Your task to perform on an android device: toggle data saver in the chrome app Image 0: 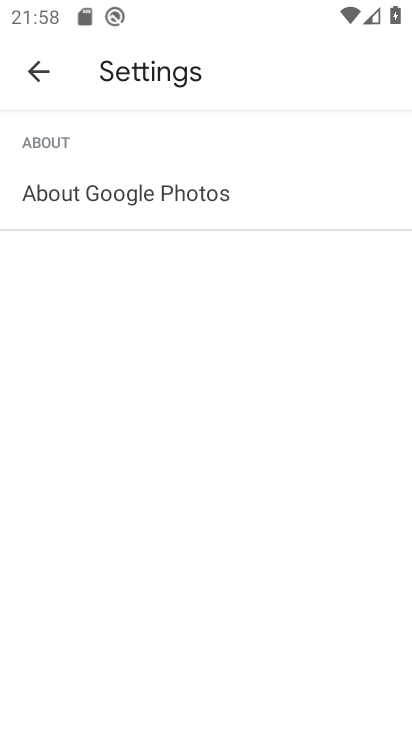
Step 0: click (32, 78)
Your task to perform on an android device: toggle data saver in the chrome app Image 1: 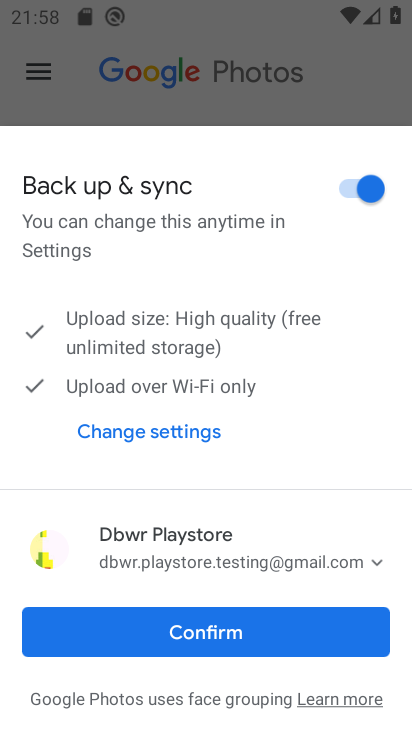
Step 1: click (210, 625)
Your task to perform on an android device: toggle data saver in the chrome app Image 2: 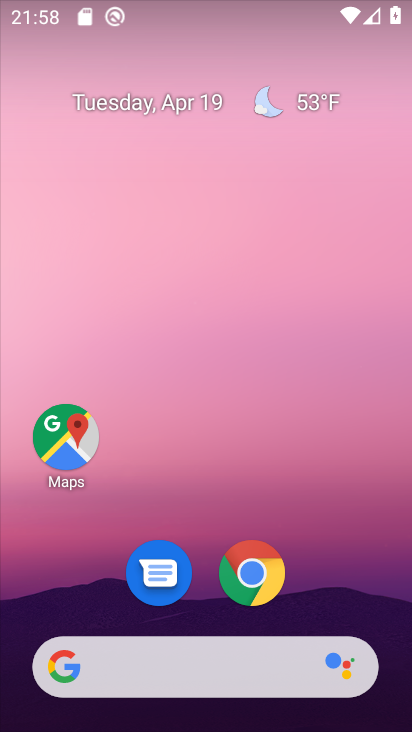
Step 2: click (250, 569)
Your task to perform on an android device: toggle data saver in the chrome app Image 3: 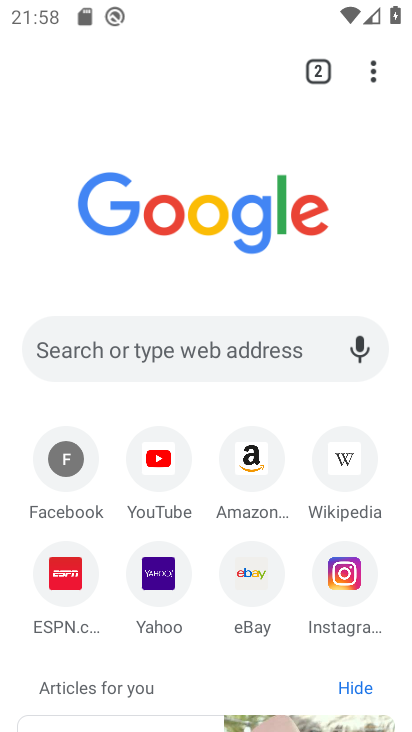
Step 3: click (375, 68)
Your task to perform on an android device: toggle data saver in the chrome app Image 4: 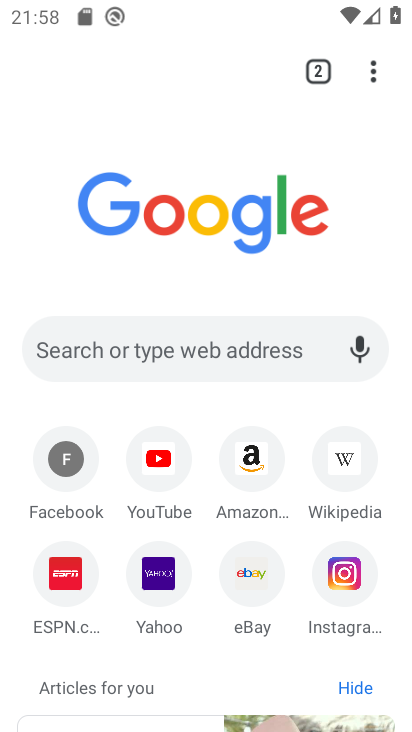
Step 4: click (376, 65)
Your task to perform on an android device: toggle data saver in the chrome app Image 5: 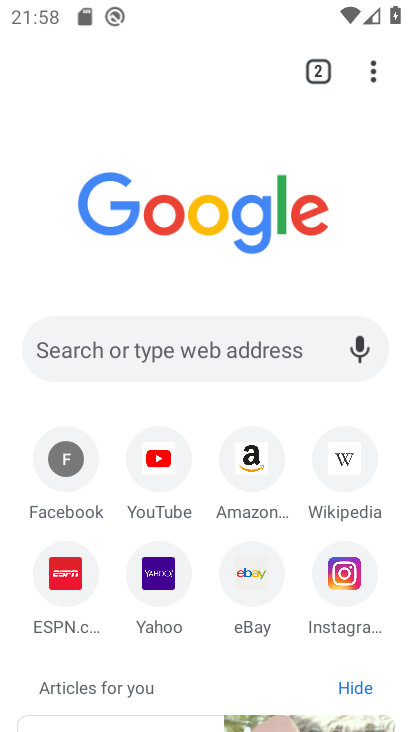
Step 5: click (366, 63)
Your task to perform on an android device: toggle data saver in the chrome app Image 6: 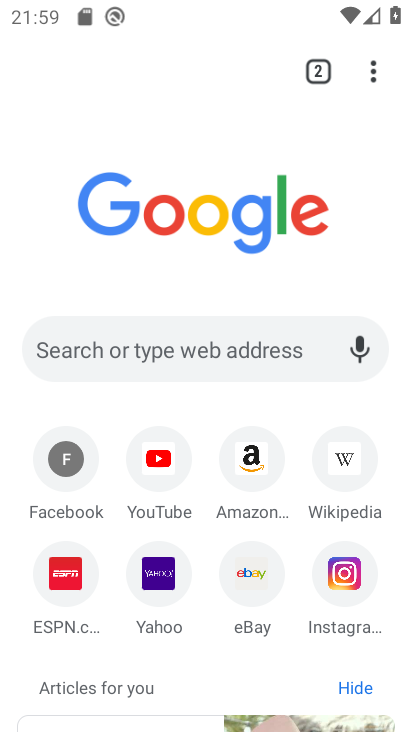
Step 6: click (374, 65)
Your task to perform on an android device: toggle data saver in the chrome app Image 7: 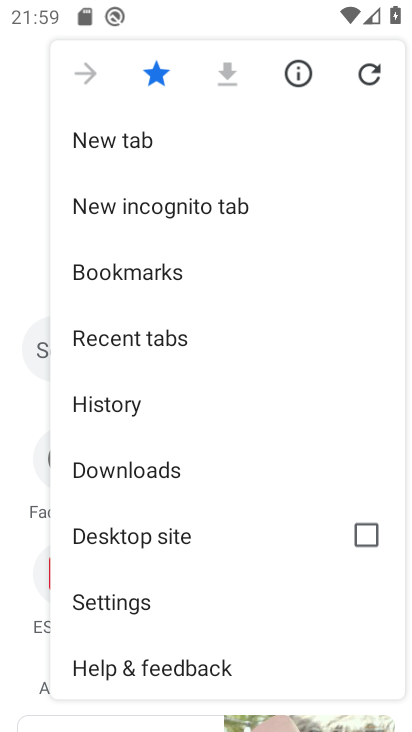
Step 7: click (179, 601)
Your task to perform on an android device: toggle data saver in the chrome app Image 8: 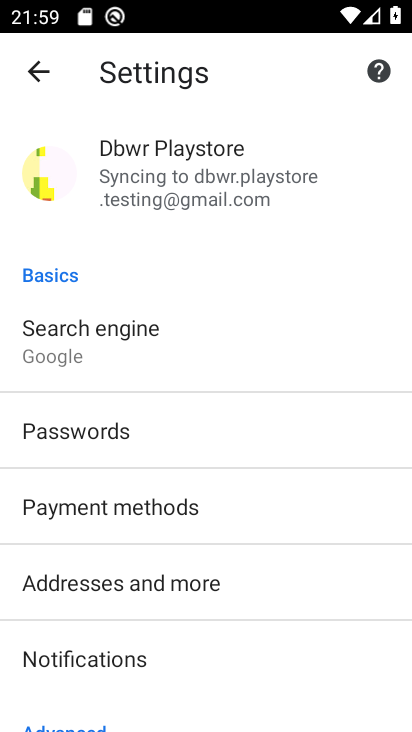
Step 8: drag from (247, 640) to (282, 156)
Your task to perform on an android device: toggle data saver in the chrome app Image 9: 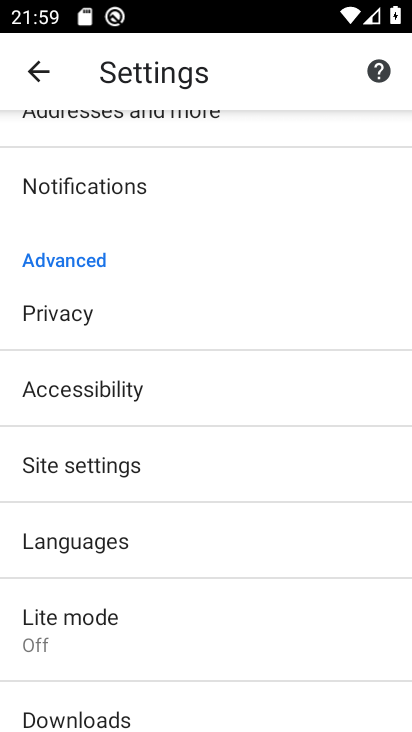
Step 9: click (152, 643)
Your task to perform on an android device: toggle data saver in the chrome app Image 10: 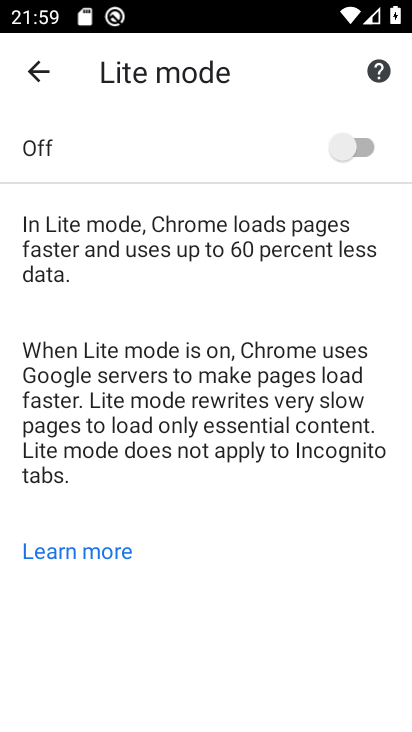
Step 10: click (371, 138)
Your task to perform on an android device: toggle data saver in the chrome app Image 11: 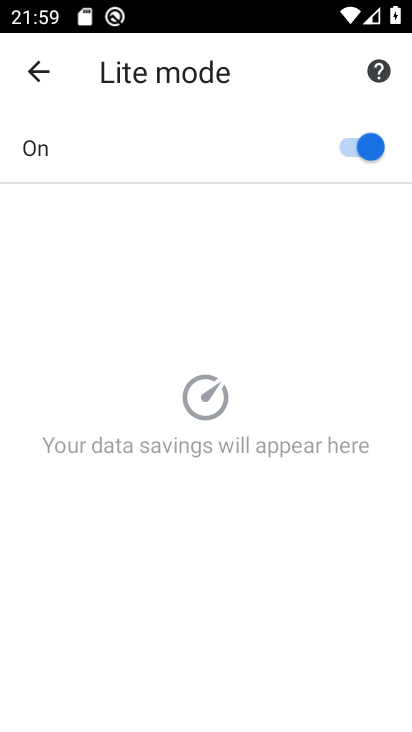
Step 11: task complete